Your task to perform on an android device: turn notification dots off Image 0: 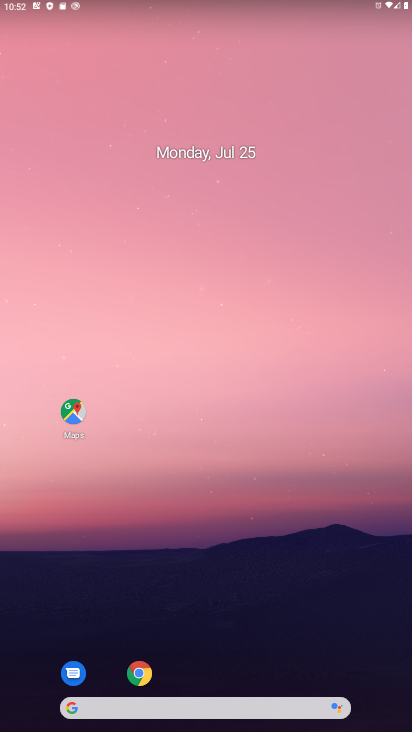
Step 0: drag from (216, 674) to (235, 30)
Your task to perform on an android device: turn notification dots off Image 1: 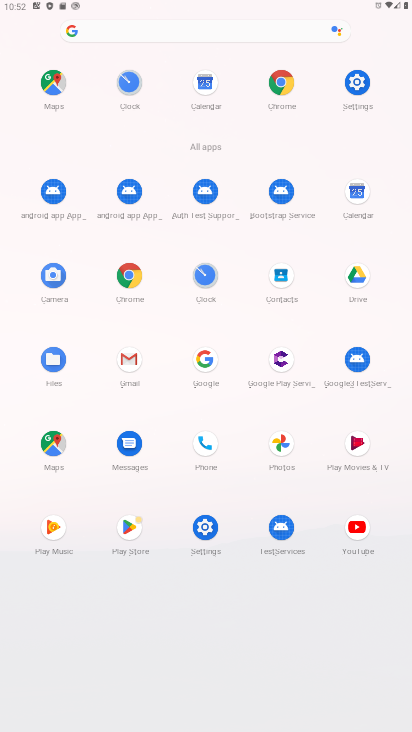
Step 1: click (355, 77)
Your task to perform on an android device: turn notification dots off Image 2: 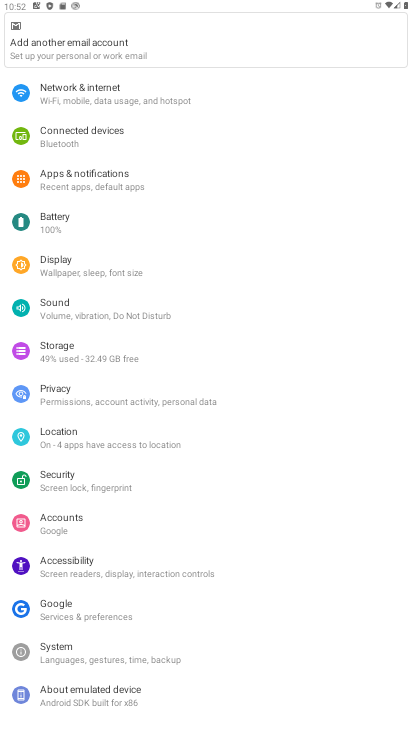
Step 2: click (138, 172)
Your task to perform on an android device: turn notification dots off Image 3: 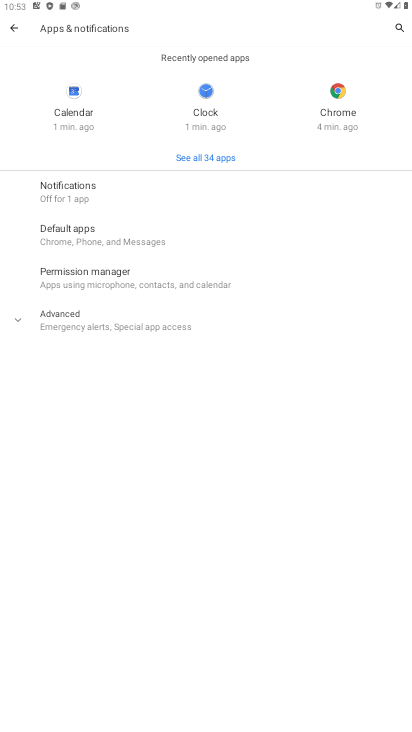
Step 3: click (106, 189)
Your task to perform on an android device: turn notification dots off Image 4: 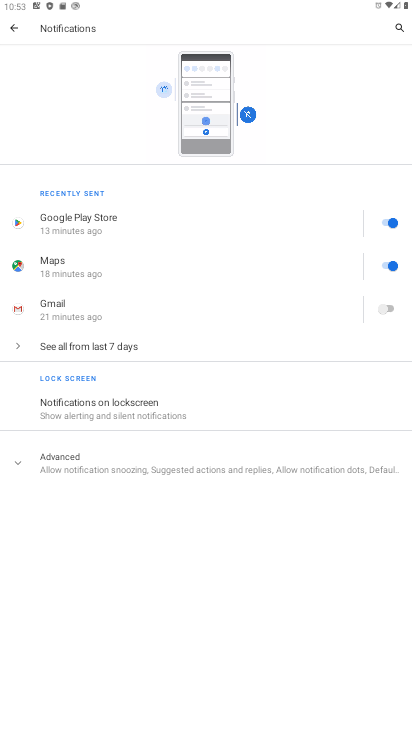
Step 4: click (13, 458)
Your task to perform on an android device: turn notification dots off Image 5: 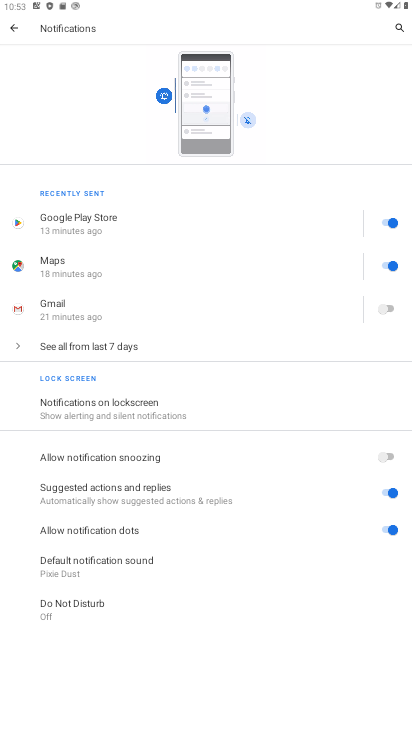
Step 5: click (382, 525)
Your task to perform on an android device: turn notification dots off Image 6: 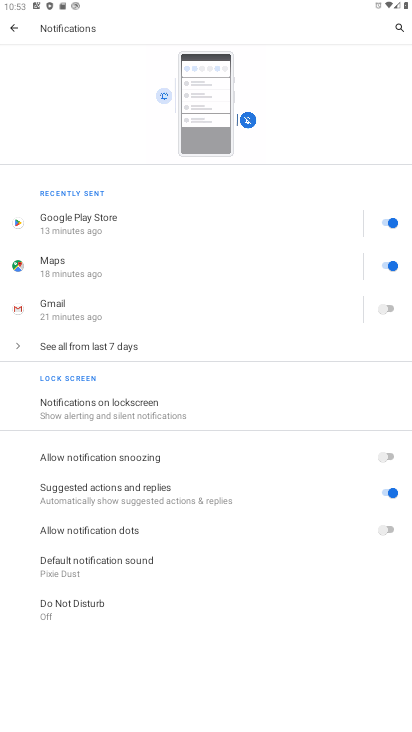
Step 6: task complete